Your task to perform on an android device: turn off sleep mode Image 0: 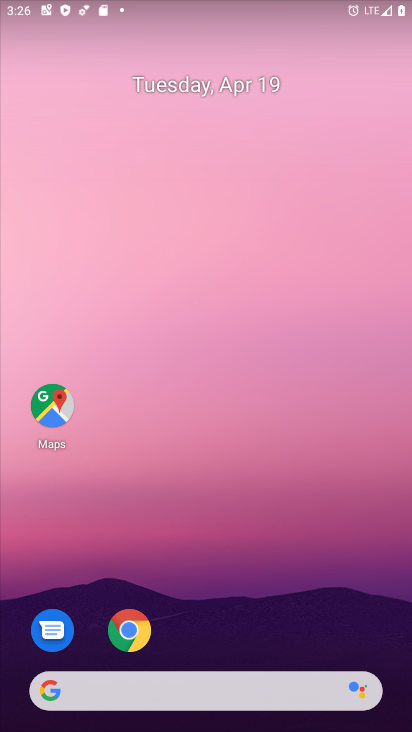
Step 0: drag from (216, 716) to (220, 189)
Your task to perform on an android device: turn off sleep mode Image 1: 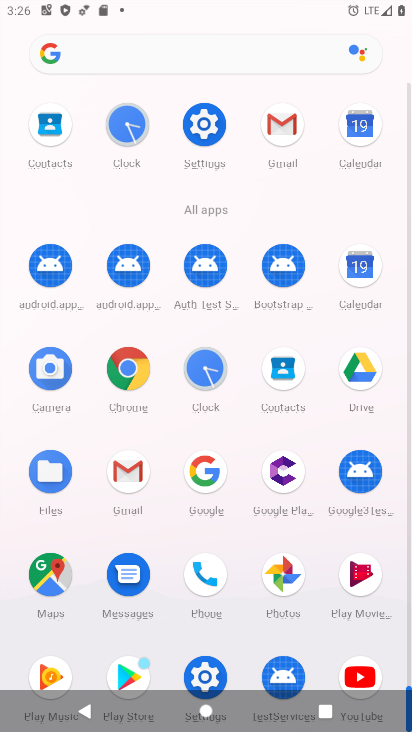
Step 1: click (201, 121)
Your task to perform on an android device: turn off sleep mode Image 2: 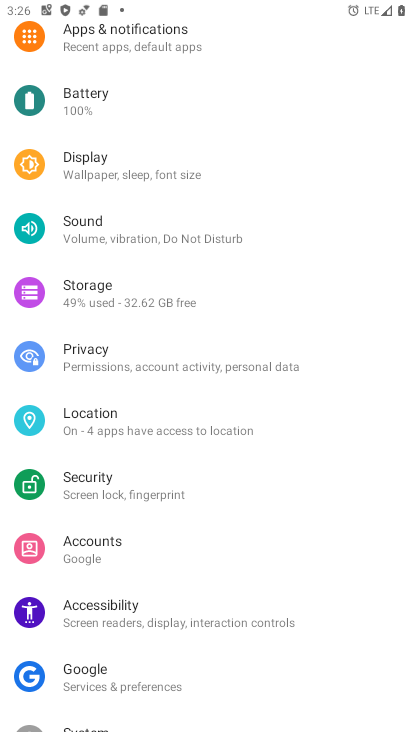
Step 2: drag from (169, 661) to (183, 237)
Your task to perform on an android device: turn off sleep mode Image 3: 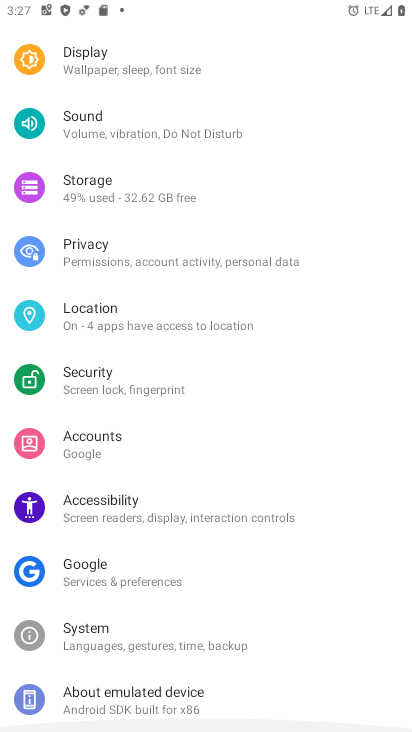
Step 3: drag from (214, 138) to (180, 515)
Your task to perform on an android device: turn off sleep mode Image 4: 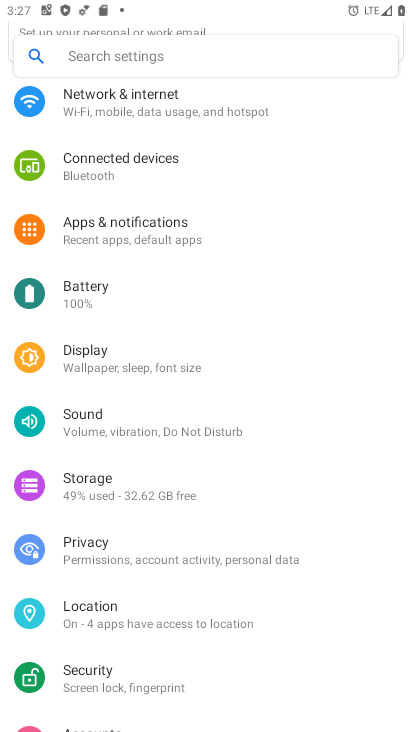
Step 4: click (122, 366)
Your task to perform on an android device: turn off sleep mode Image 5: 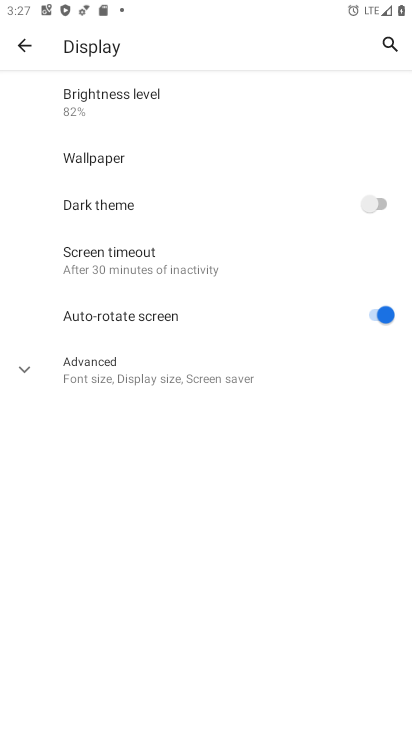
Step 5: task complete